Your task to perform on an android device: Go to network settings Image 0: 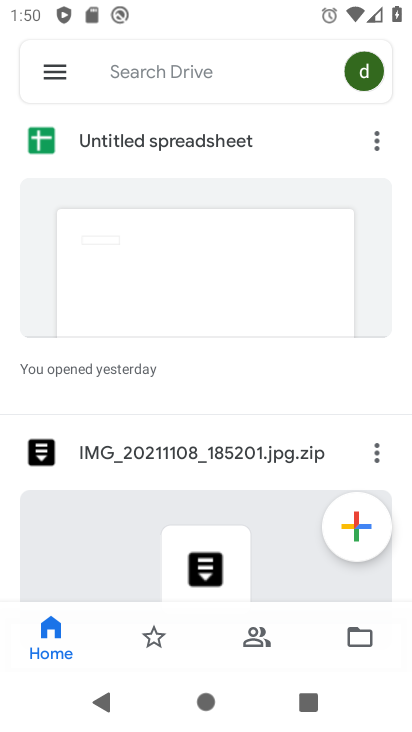
Step 0: press home button
Your task to perform on an android device: Go to network settings Image 1: 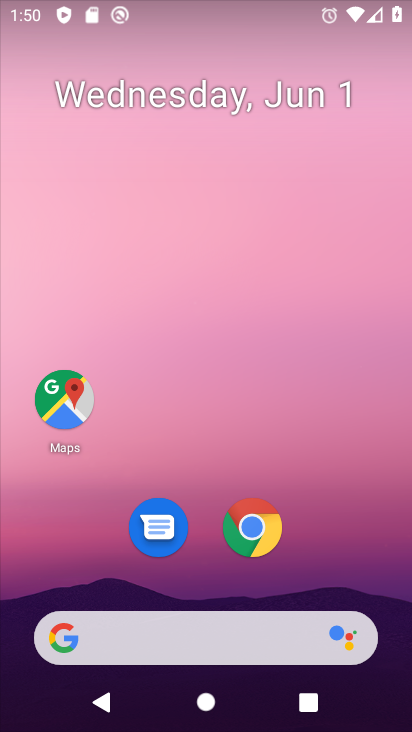
Step 1: drag from (370, 583) to (310, 203)
Your task to perform on an android device: Go to network settings Image 2: 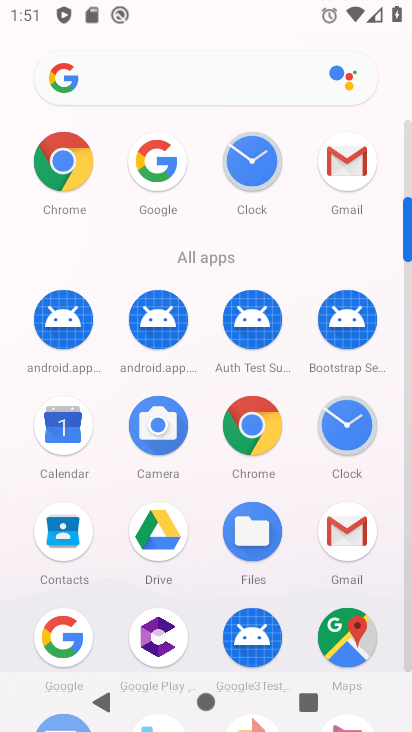
Step 2: click (407, 665)
Your task to perform on an android device: Go to network settings Image 3: 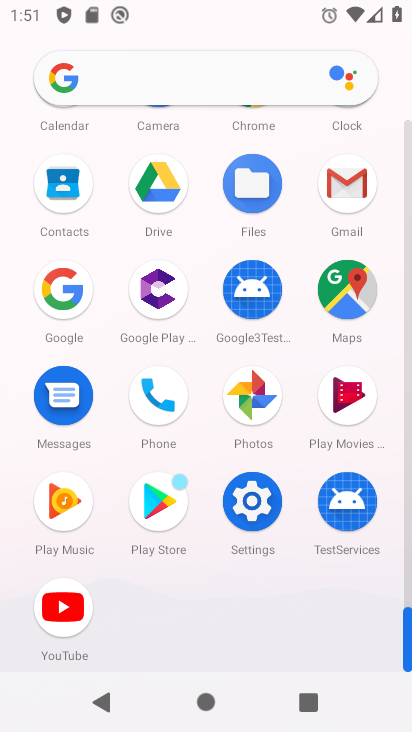
Step 3: click (263, 501)
Your task to perform on an android device: Go to network settings Image 4: 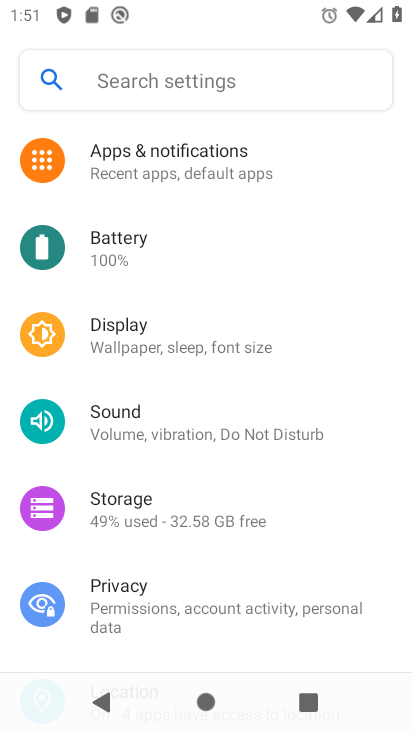
Step 4: drag from (218, 165) to (204, 564)
Your task to perform on an android device: Go to network settings Image 5: 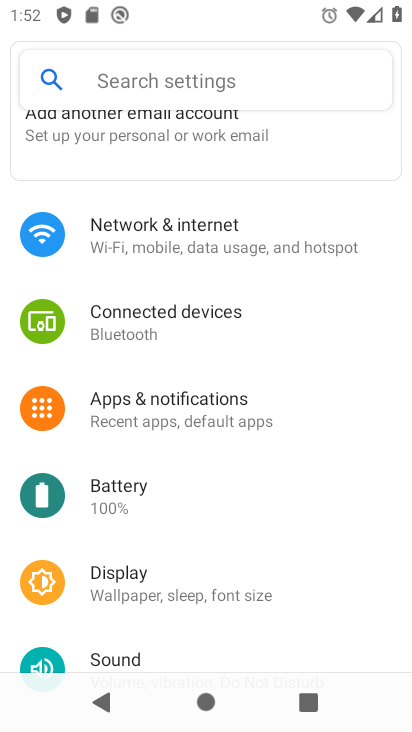
Step 5: click (162, 243)
Your task to perform on an android device: Go to network settings Image 6: 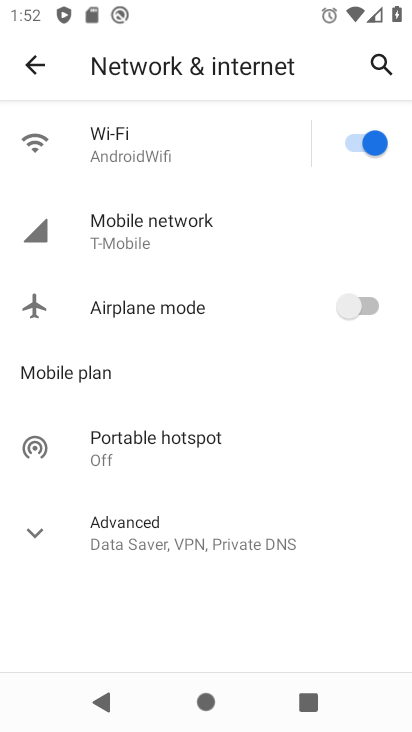
Step 6: task complete